Your task to perform on an android device: Open eBay Image 0: 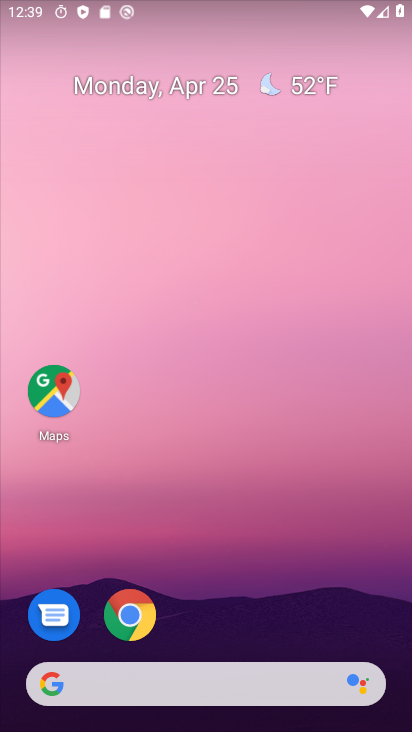
Step 0: drag from (196, 651) to (186, 77)
Your task to perform on an android device: Open eBay Image 1: 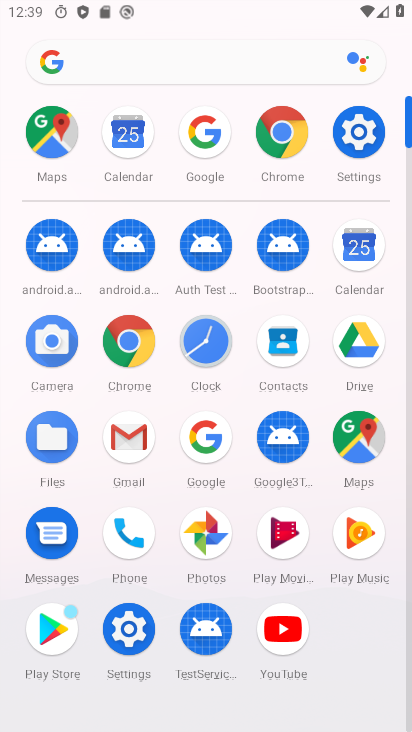
Step 1: click (130, 345)
Your task to perform on an android device: Open eBay Image 2: 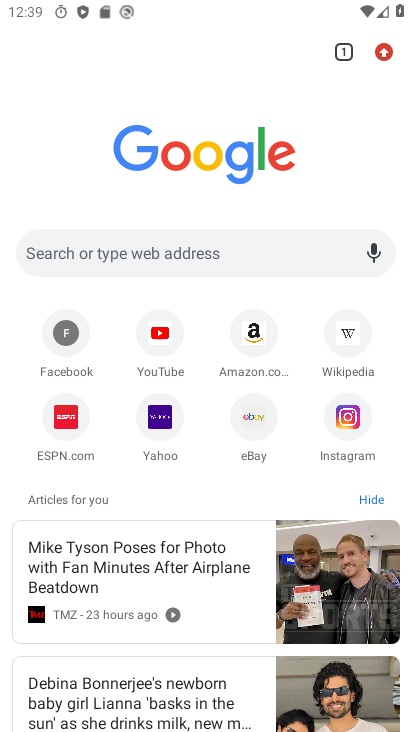
Step 2: click (249, 408)
Your task to perform on an android device: Open eBay Image 3: 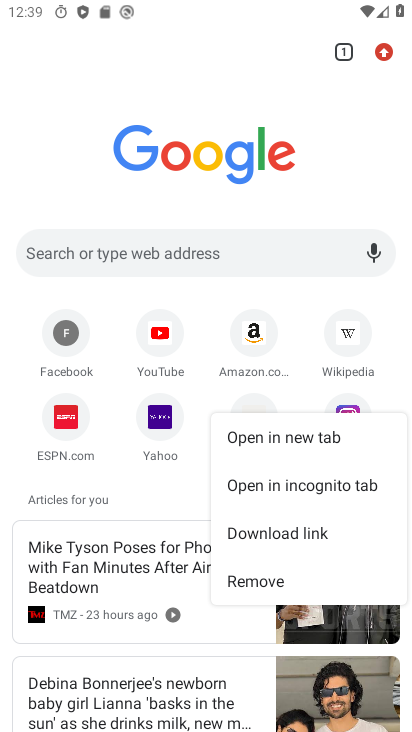
Step 3: click (265, 399)
Your task to perform on an android device: Open eBay Image 4: 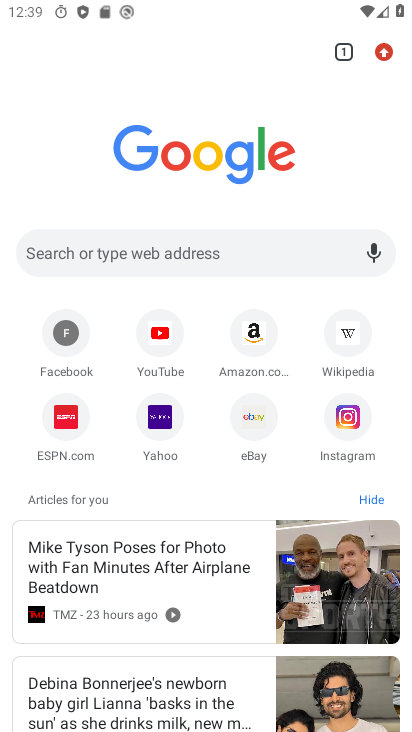
Step 4: click (253, 410)
Your task to perform on an android device: Open eBay Image 5: 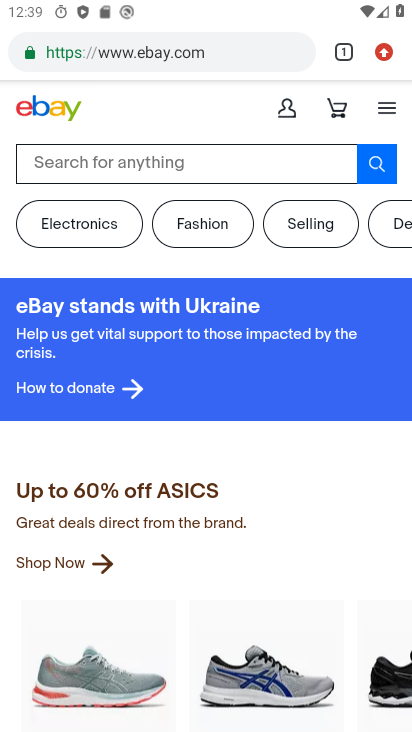
Step 5: task complete